Your task to perform on an android device: Search for seafood restaurants on Google Maps Image 0: 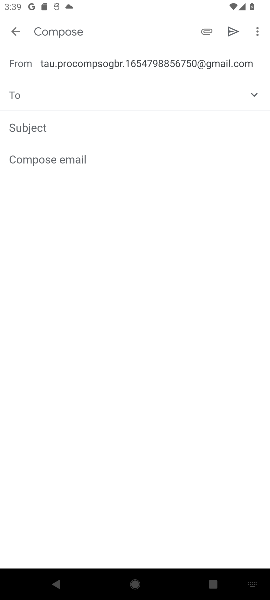
Step 0: click (18, 32)
Your task to perform on an android device: Search for seafood restaurants on Google Maps Image 1: 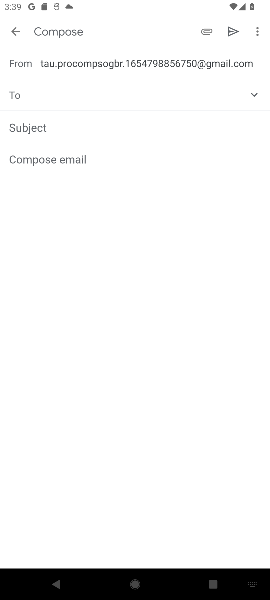
Step 1: click (18, 32)
Your task to perform on an android device: Search for seafood restaurants on Google Maps Image 2: 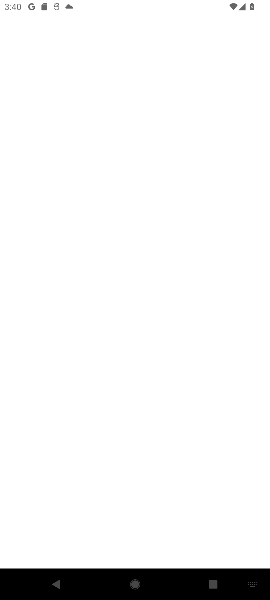
Step 2: press back button
Your task to perform on an android device: Search for seafood restaurants on Google Maps Image 3: 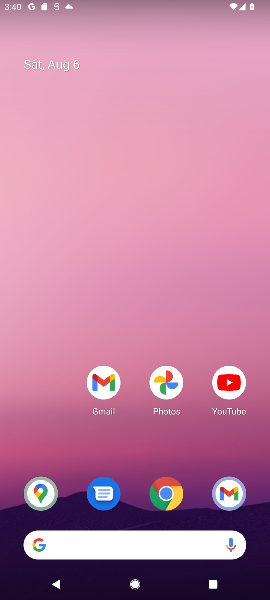
Step 3: drag from (155, 468) to (84, 129)
Your task to perform on an android device: Search for seafood restaurants on Google Maps Image 4: 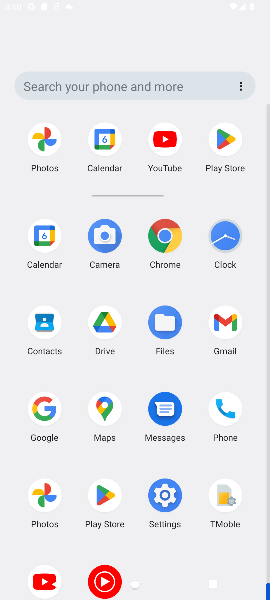
Step 4: drag from (121, 490) to (94, 219)
Your task to perform on an android device: Search for seafood restaurants on Google Maps Image 5: 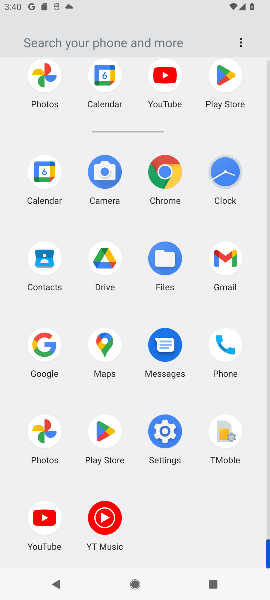
Step 5: click (106, 342)
Your task to perform on an android device: Search for seafood restaurants on Google Maps Image 6: 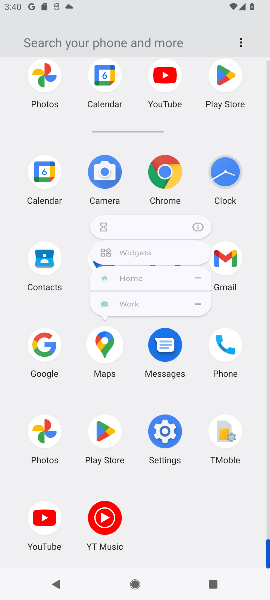
Step 6: click (106, 343)
Your task to perform on an android device: Search for seafood restaurants on Google Maps Image 7: 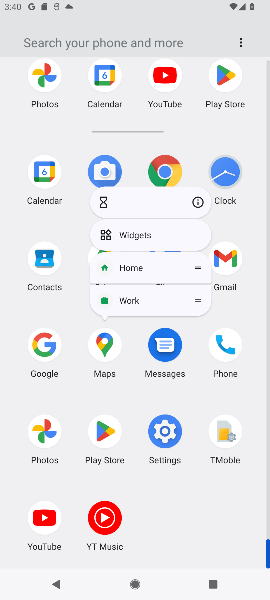
Step 7: click (106, 344)
Your task to perform on an android device: Search for seafood restaurants on Google Maps Image 8: 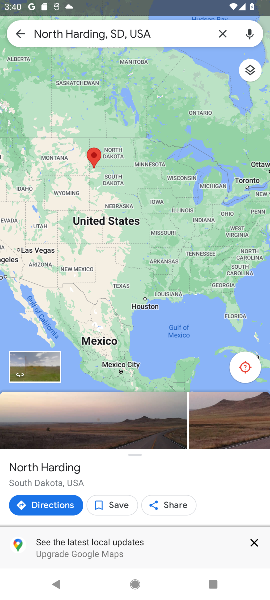
Step 8: click (222, 29)
Your task to perform on an android device: Search for seafood restaurants on Google Maps Image 9: 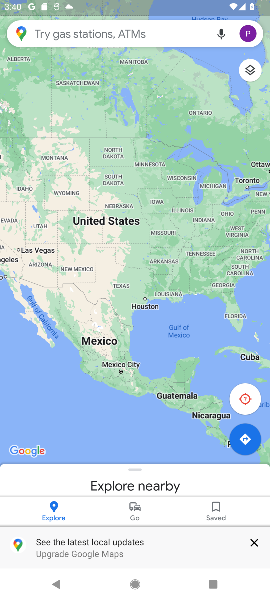
Step 9: click (44, 29)
Your task to perform on an android device: Search for seafood restaurants on Google Maps Image 10: 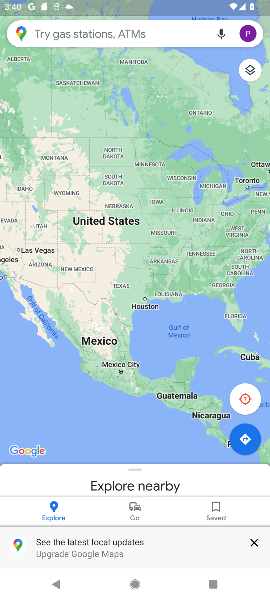
Step 10: click (45, 31)
Your task to perform on an android device: Search for seafood restaurants on Google Maps Image 11: 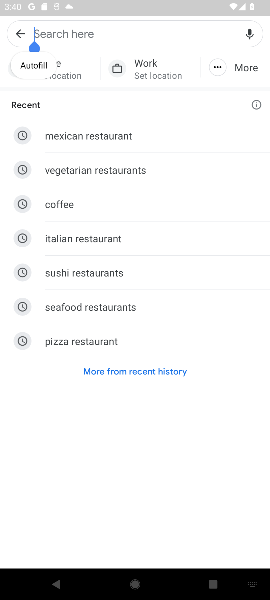
Step 11: click (69, 304)
Your task to perform on an android device: Search for seafood restaurants on Google Maps Image 12: 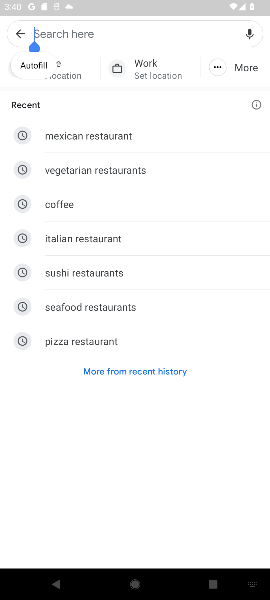
Step 12: click (69, 304)
Your task to perform on an android device: Search for seafood restaurants on Google Maps Image 13: 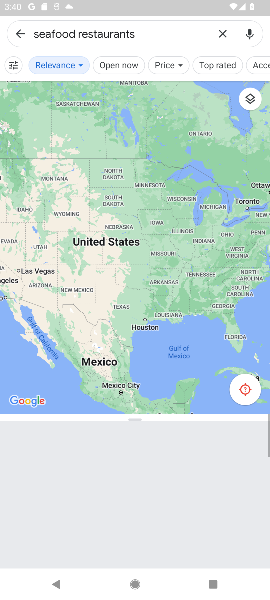
Step 13: task complete